Your task to perform on an android device: change the clock display to digital Image 0: 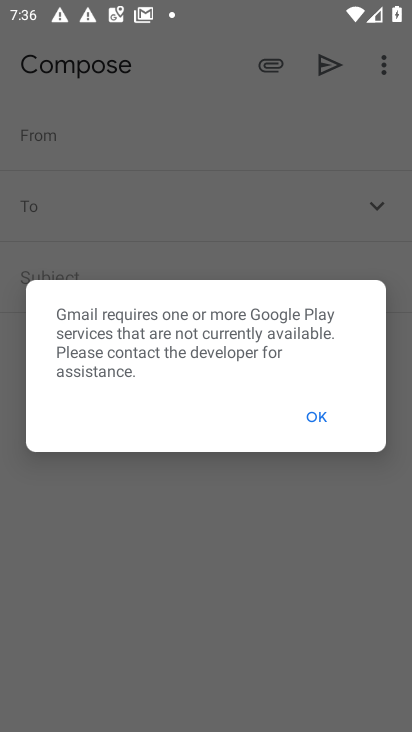
Step 0: press home button
Your task to perform on an android device: change the clock display to digital Image 1: 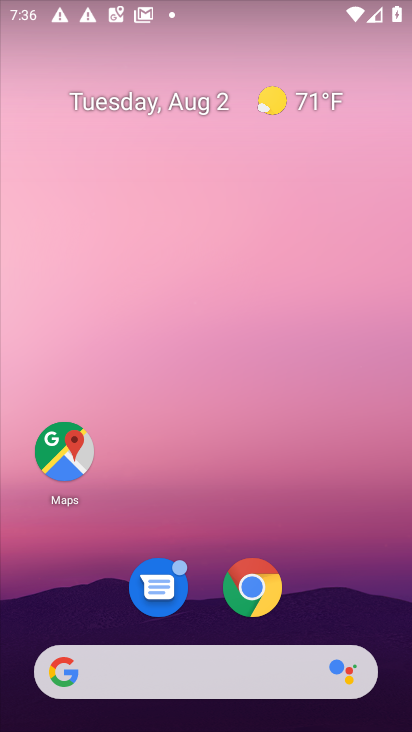
Step 1: drag from (200, 538) to (185, 60)
Your task to perform on an android device: change the clock display to digital Image 2: 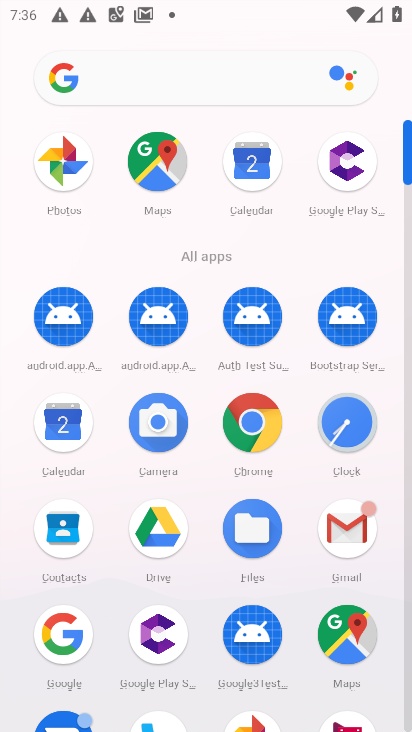
Step 2: click (348, 420)
Your task to perform on an android device: change the clock display to digital Image 3: 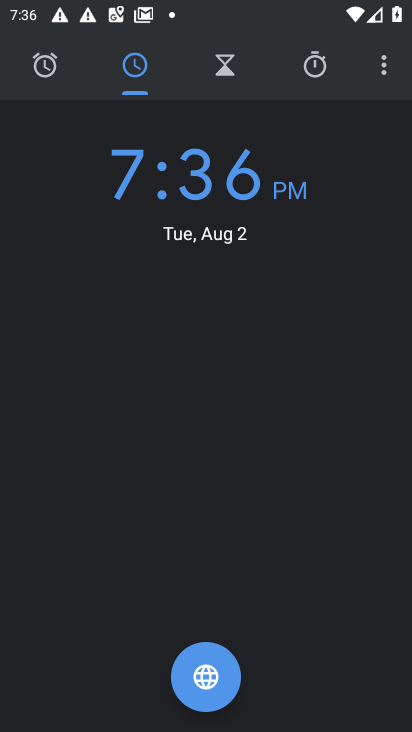
Step 3: click (388, 65)
Your task to perform on an android device: change the clock display to digital Image 4: 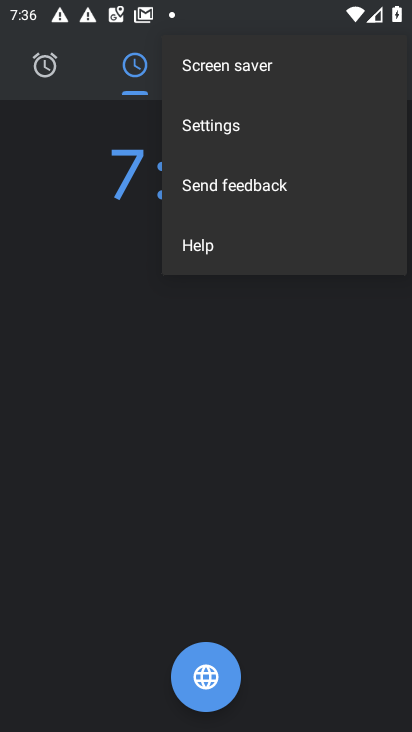
Step 4: click (232, 122)
Your task to perform on an android device: change the clock display to digital Image 5: 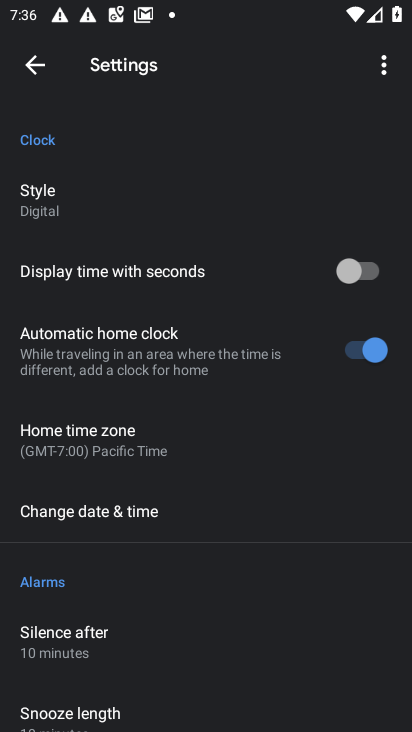
Step 5: task complete